Your task to perform on an android device: open app "Expedia: Hotels, Flights & Car" (install if not already installed) and enter user name: "crusader@outlook.com" and password: "Toryize" Image 0: 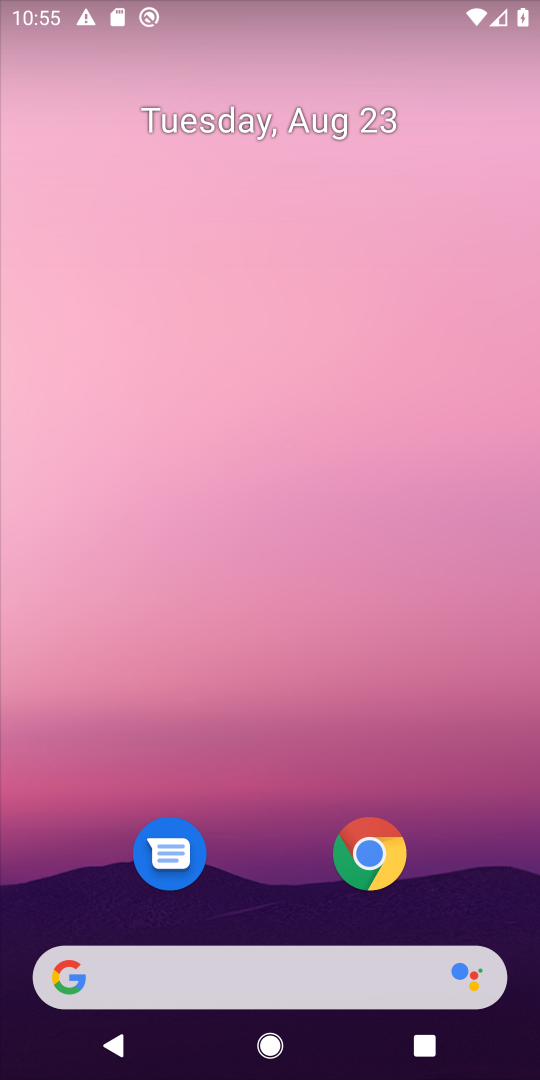
Step 0: drag from (337, 885) to (457, 116)
Your task to perform on an android device: open app "Expedia: Hotels, Flights & Car" (install if not already installed) and enter user name: "crusader@outlook.com" and password: "Toryize" Image 1: 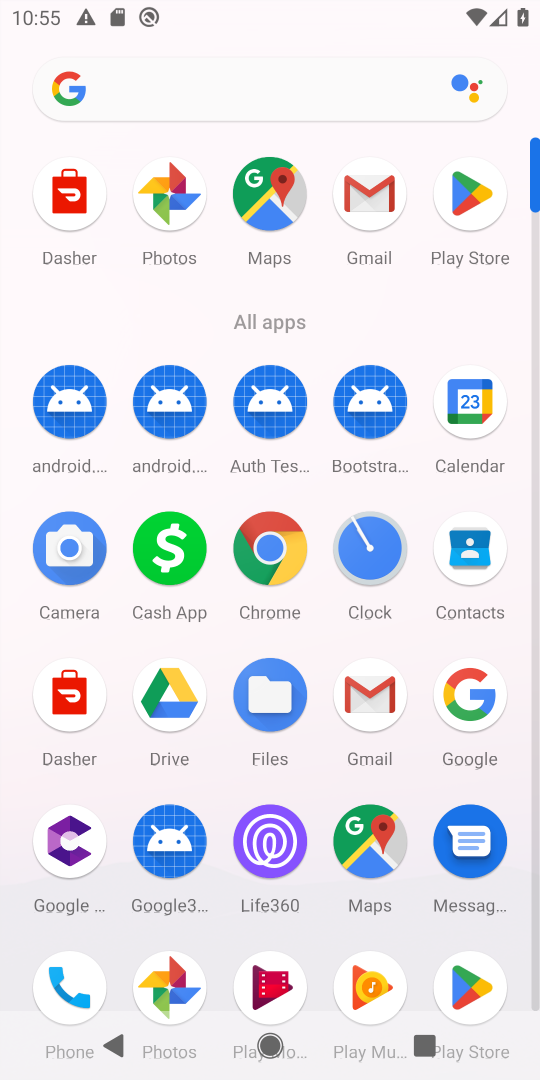
Step 1: click (449, 195)
Your task to perform on an android device: open app "Expedia: Hotels, Flights & Car" (install if not already installed) and enter user name: "crusader@outlook.com" and password: "Toryize" Image 2: 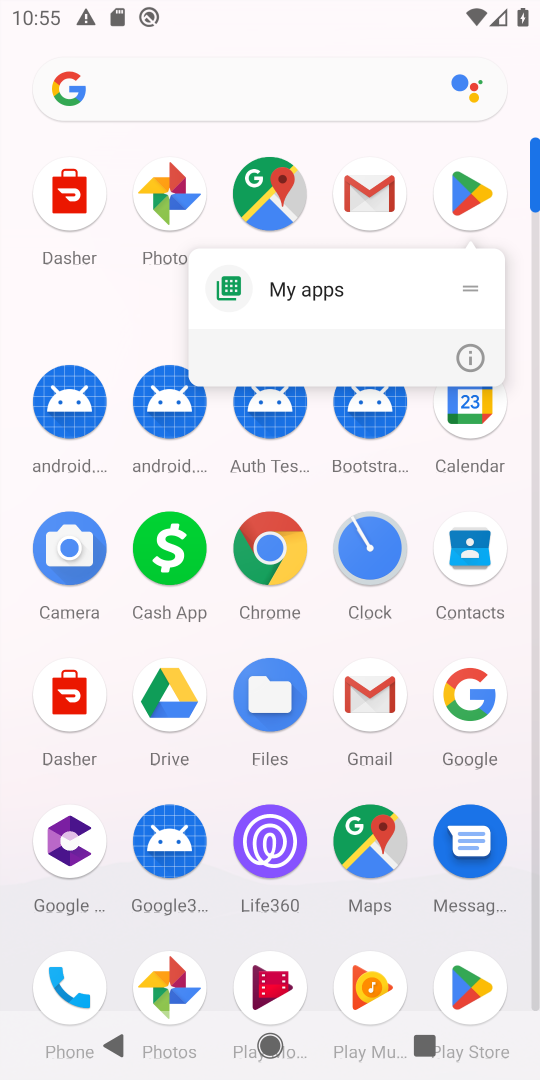
Step 2: click (449, 190)
Your task to perform on an android device: open app "Expedia: Hotels, Flights & Car" (install if not already installed) and enter user name: "crusader@outlook.com" and password: "Toryize" Image 3: 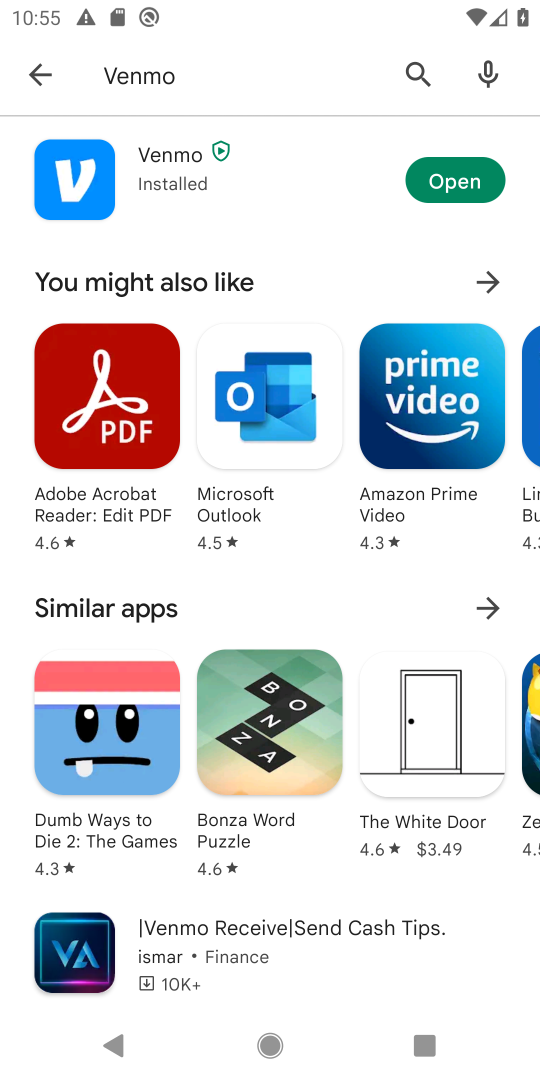
Step 3: press back button
Your task to perform on an android device: open app "Expedia: Hotels, Flights & Car" (install if not already installed) and enter user name: "crusader@outlook.com" and password: "Toryize" Image 4: 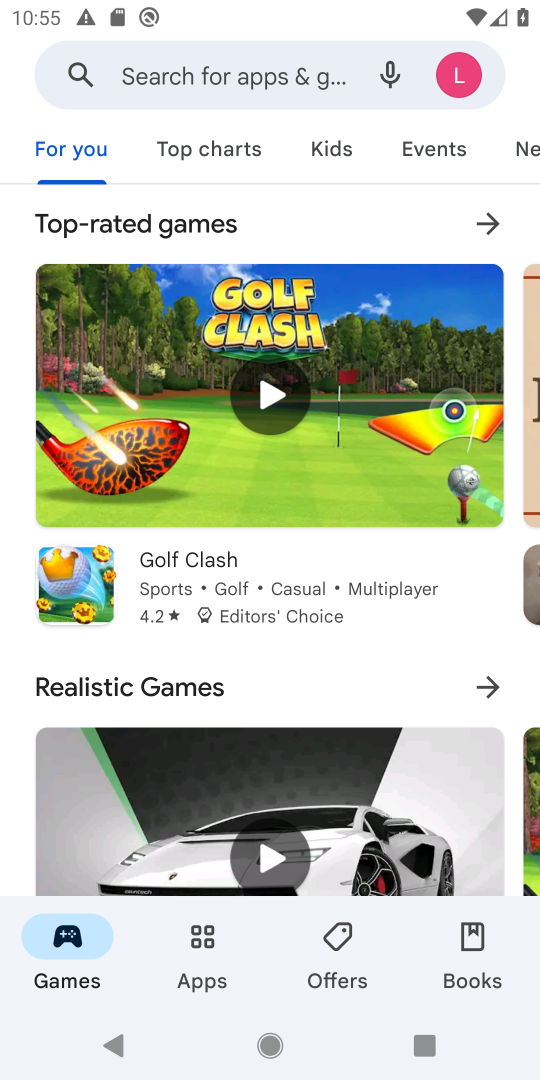
Step 4: click (190, 91)
Your task to perform on an android device: open app "Expedia: Hotels, Flights & Car" (install if not already installed) and enter user name: "crusader@outlook.com" and password: "Toryize" Image 5: 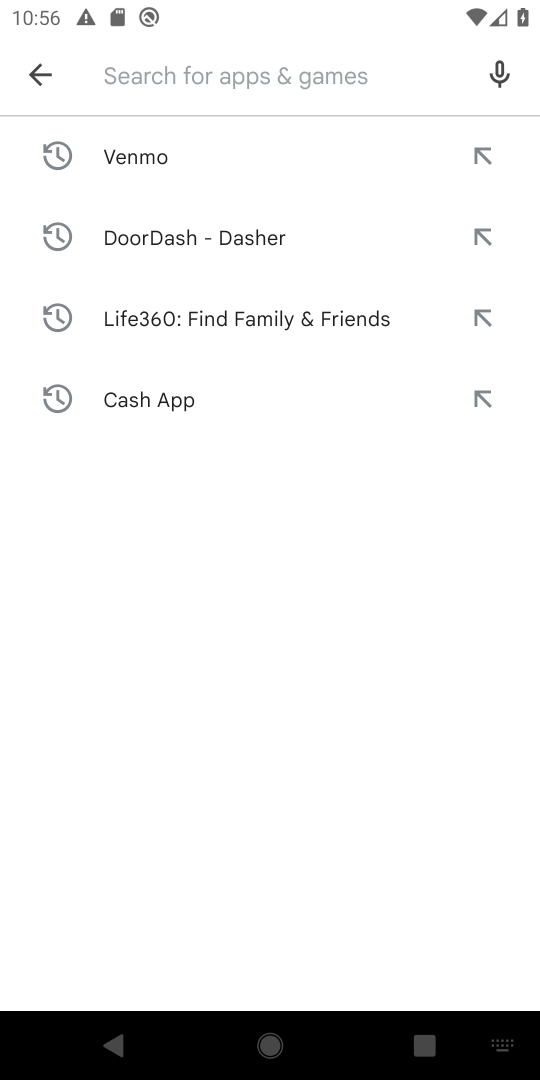
Step 5: type "Expedia: Hotels, Flights & Car"
Your task to perform on an android device: open app "Expedia: Hotels, Flights & Car" (install if not already installed) and enter user name: "crusader@outlook.com" and password: "Toryize" Image 6: 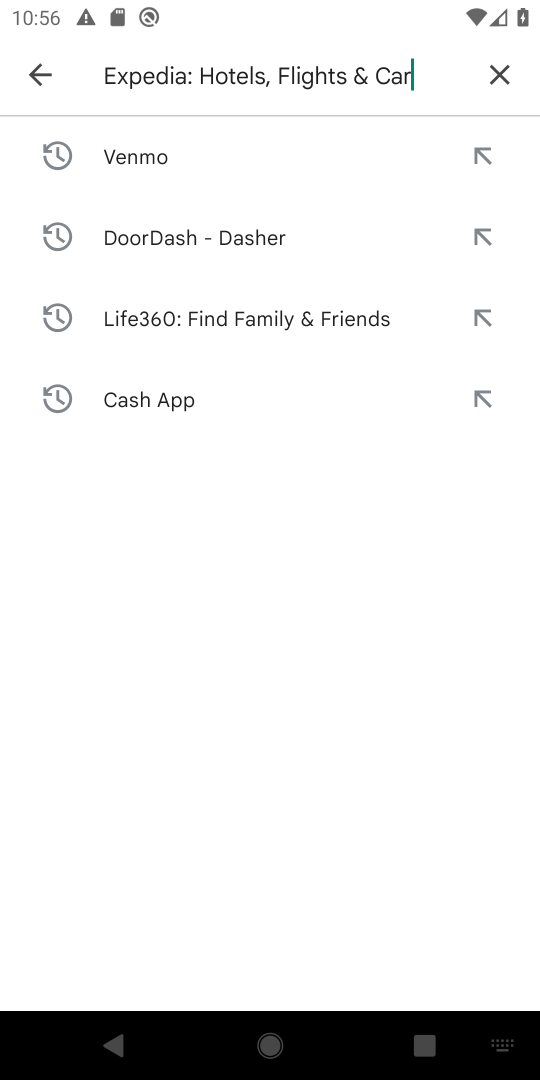
Step 6: press enter
Your task to perform on an android device: open app "Expedia: Hotels, Flights & Car" (install if not already installed) and enter user name: "crusader@outlook.com" and password: "Toryize" Image 7: 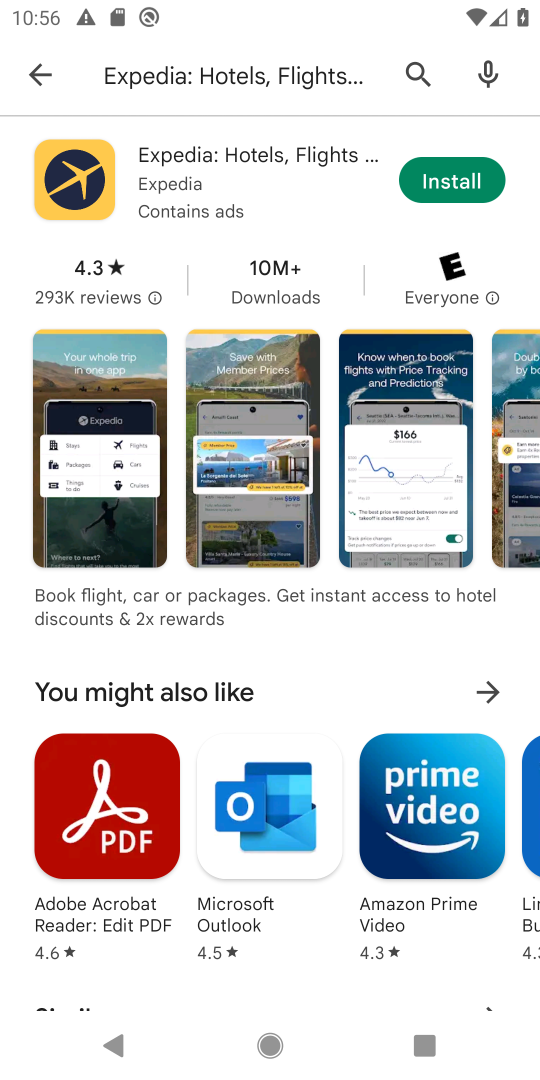
Step 7: click (472, 171)
Your task to perform on an android device: open app "Expedia: Hotels, Flights & Car" (install if not already installed) and enter user name: "crusader@outlook.com" and password: "Toryize" Image 8: 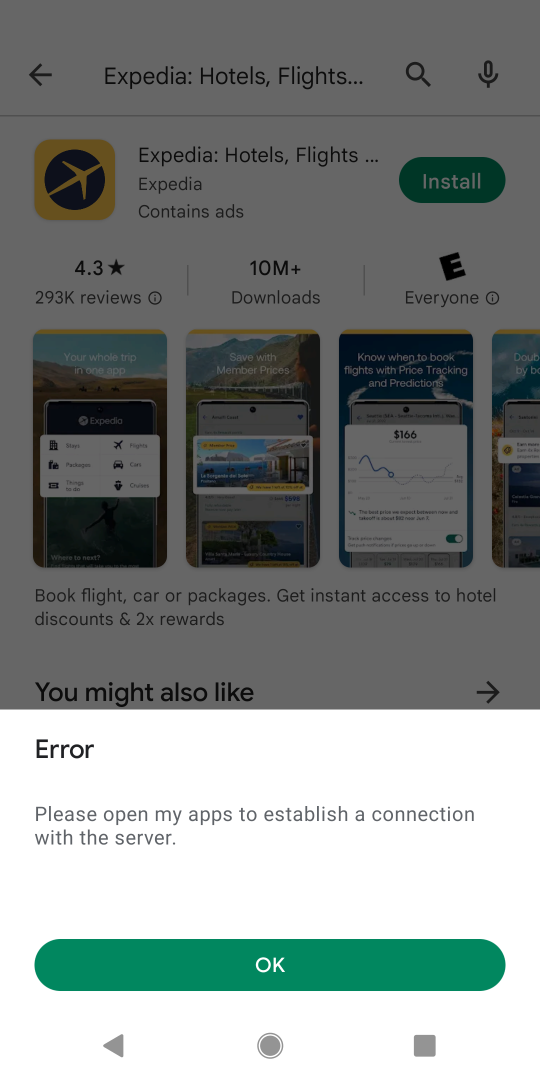
Step 8: click (303, 947)
Your task to perform on an android device: open app "Expedia: Hotels, Flights & Car" (install if not already installed) and enter user name: "crusader@outlook.com" and password: "Toryize" Image 9: 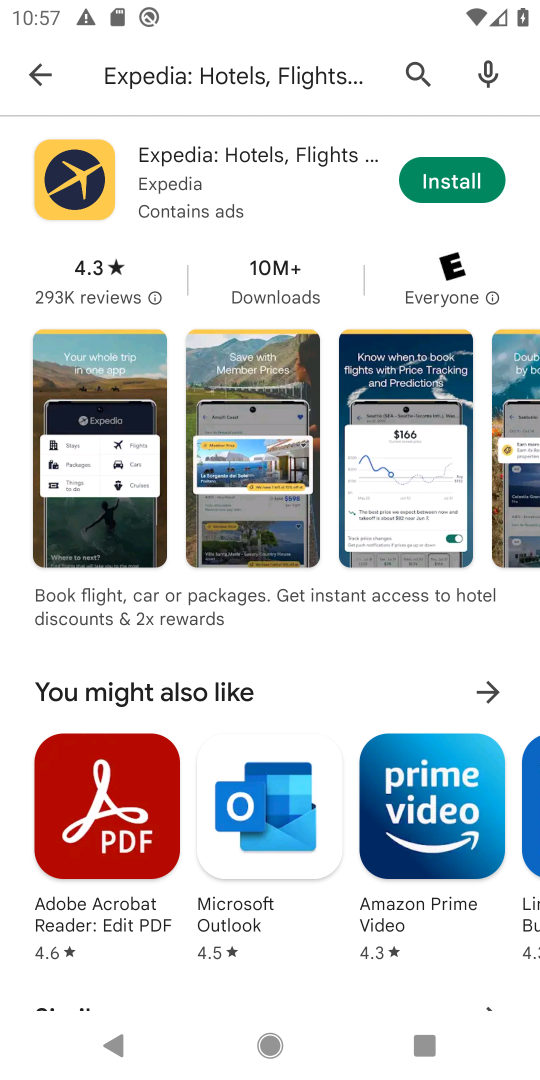
Step 9: click (468, 194)
Your task to perform on an android device: open app "Expedia: Hotels, Flights & Car" (install if not already installed) and enter user name: "crusader@outlook.com" and password: "Toryize" Image 10: 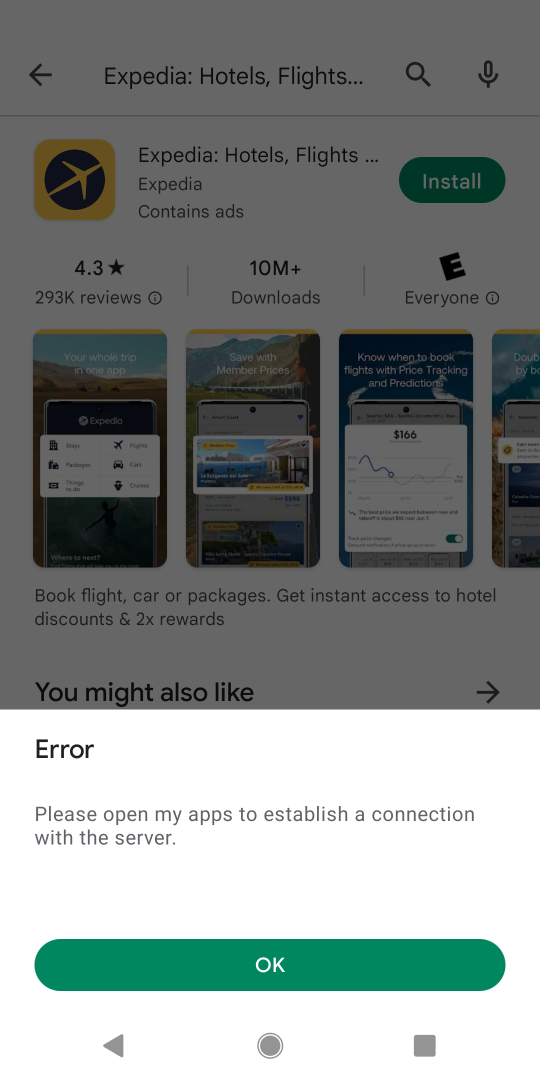
Step 10: click (202, 965)
Your task to perform on an android device: open app "Expedia: Hotels, Flights & Car" (install if not already installed) and enter user name: "crusader@outlook.com" and password: "Toryize" Image 11: 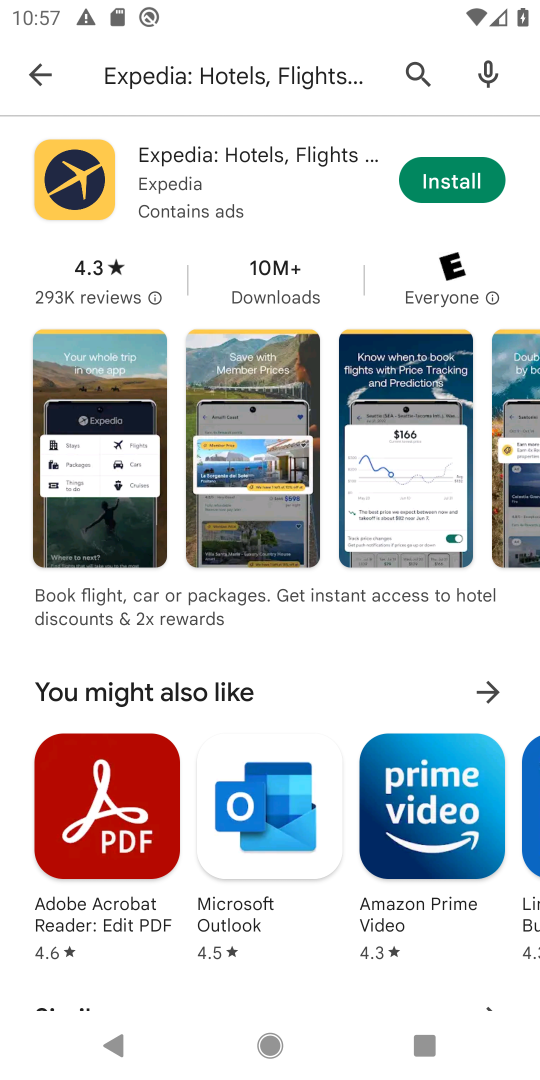
Step 11: task complete